Your task to perform on an android device: Play the last video I watched on Youtube Image 0: 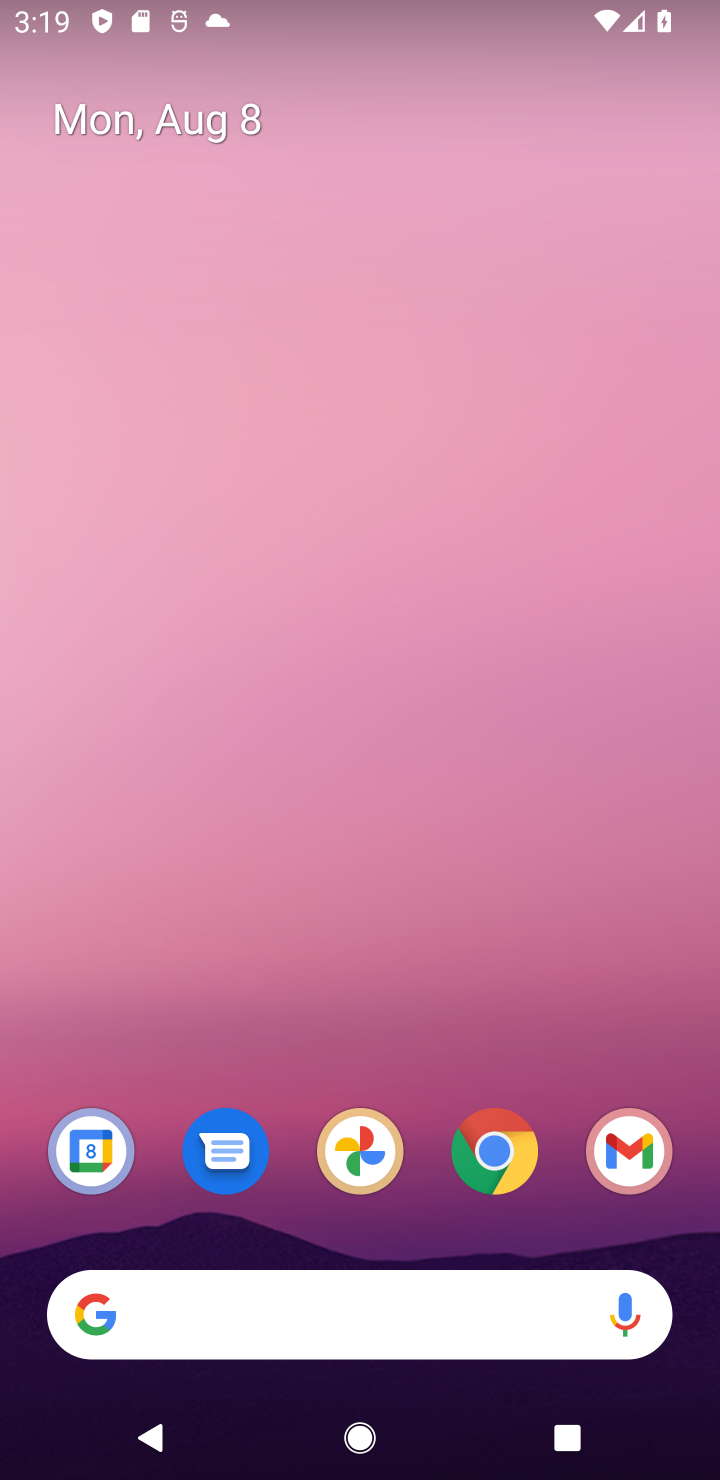
Step 0: drag from (344, 1036) to (441, 160)
Your task to perform on an android device: Play the last video I watched on Youtube Image 1: 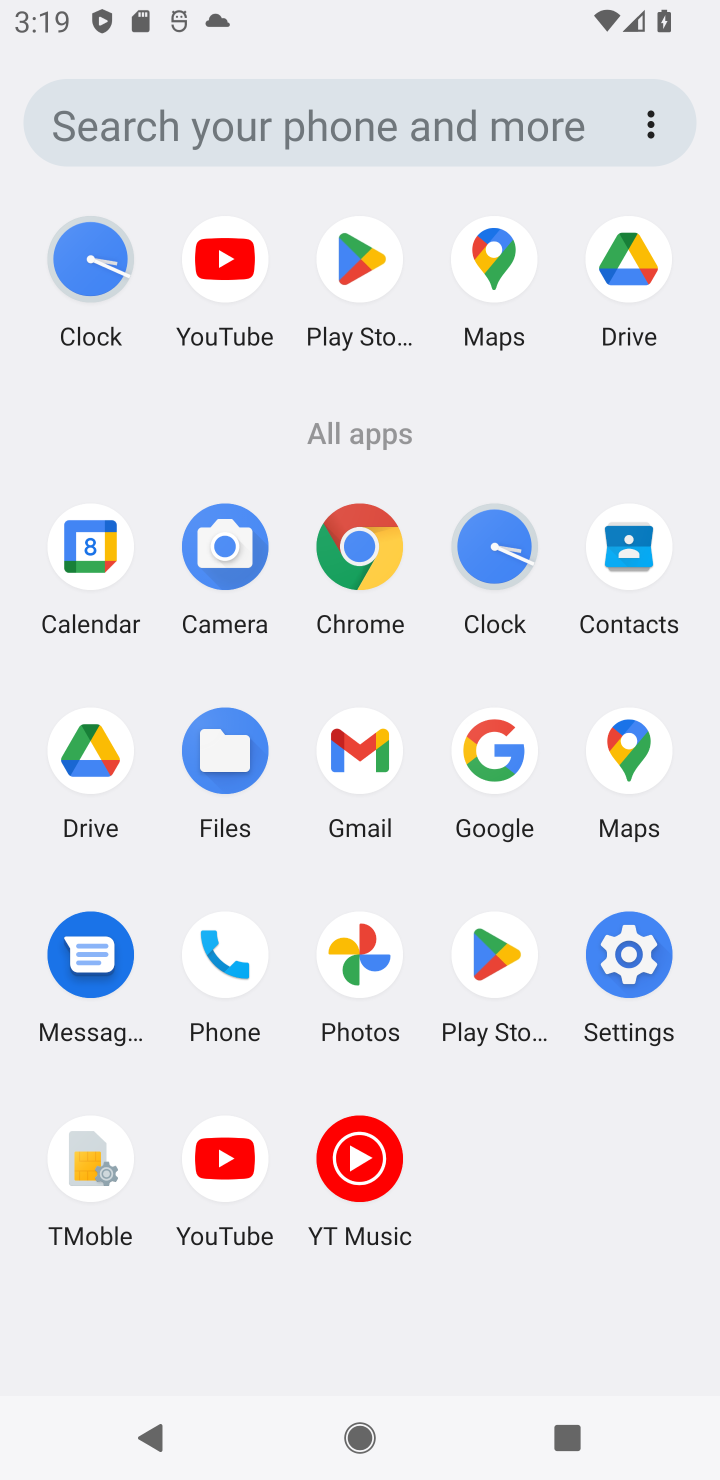
Step 1: click (259, 262)
Your task to perform on an android device: Play the last video I watched on Youtube Image 2: 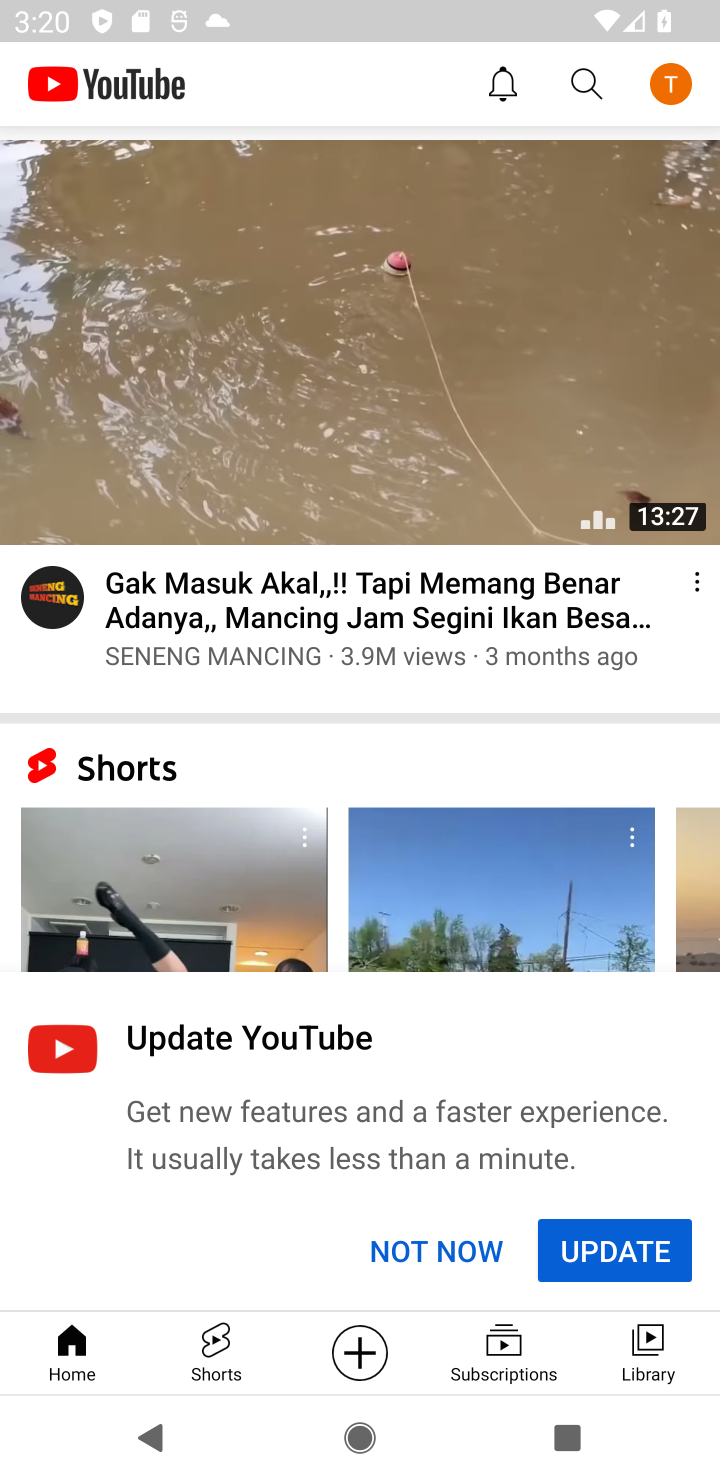
Step 2: click (644, 1363)
Your task to perform on an android device: Play the last video I watched on Youtube Image 3: 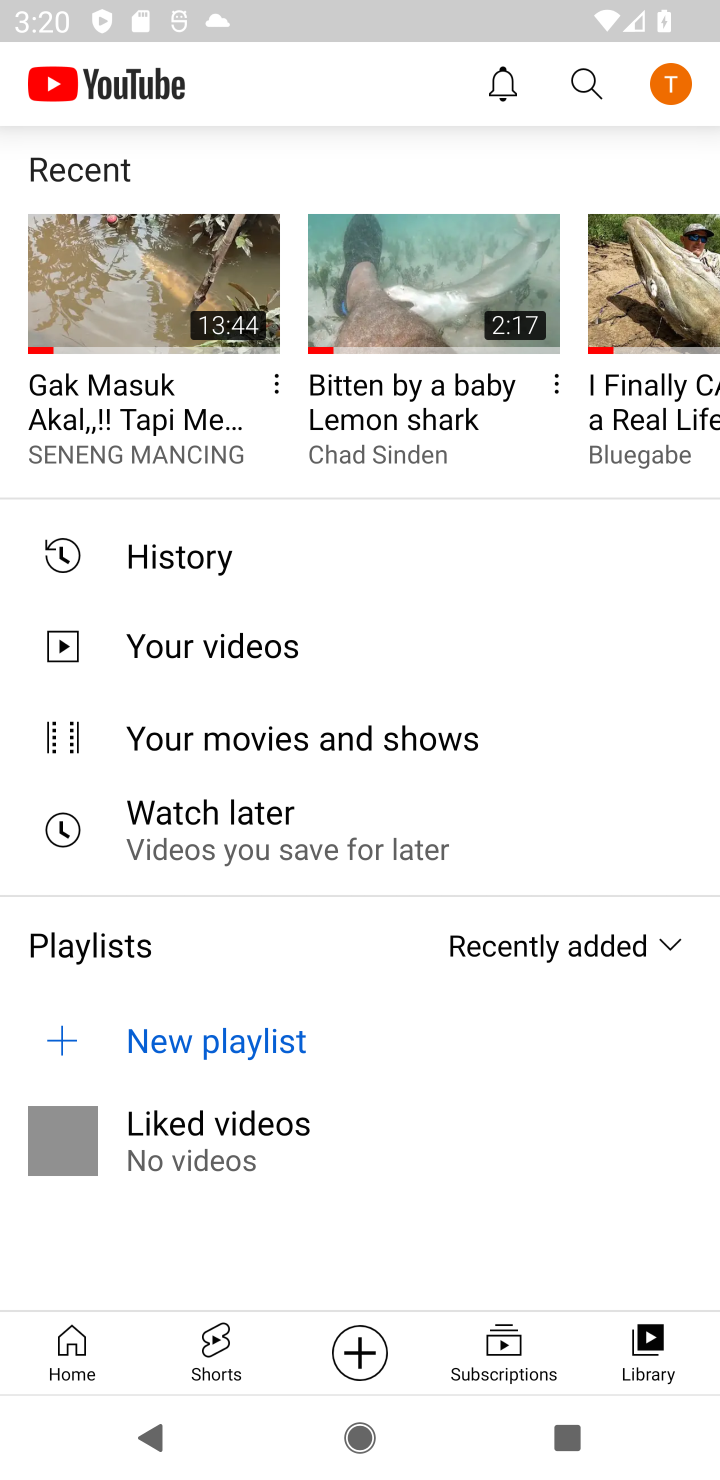
Step 3: click (152, 306)
Your task to perform on an android device: Play the last video I watched on Youtube Image 4: 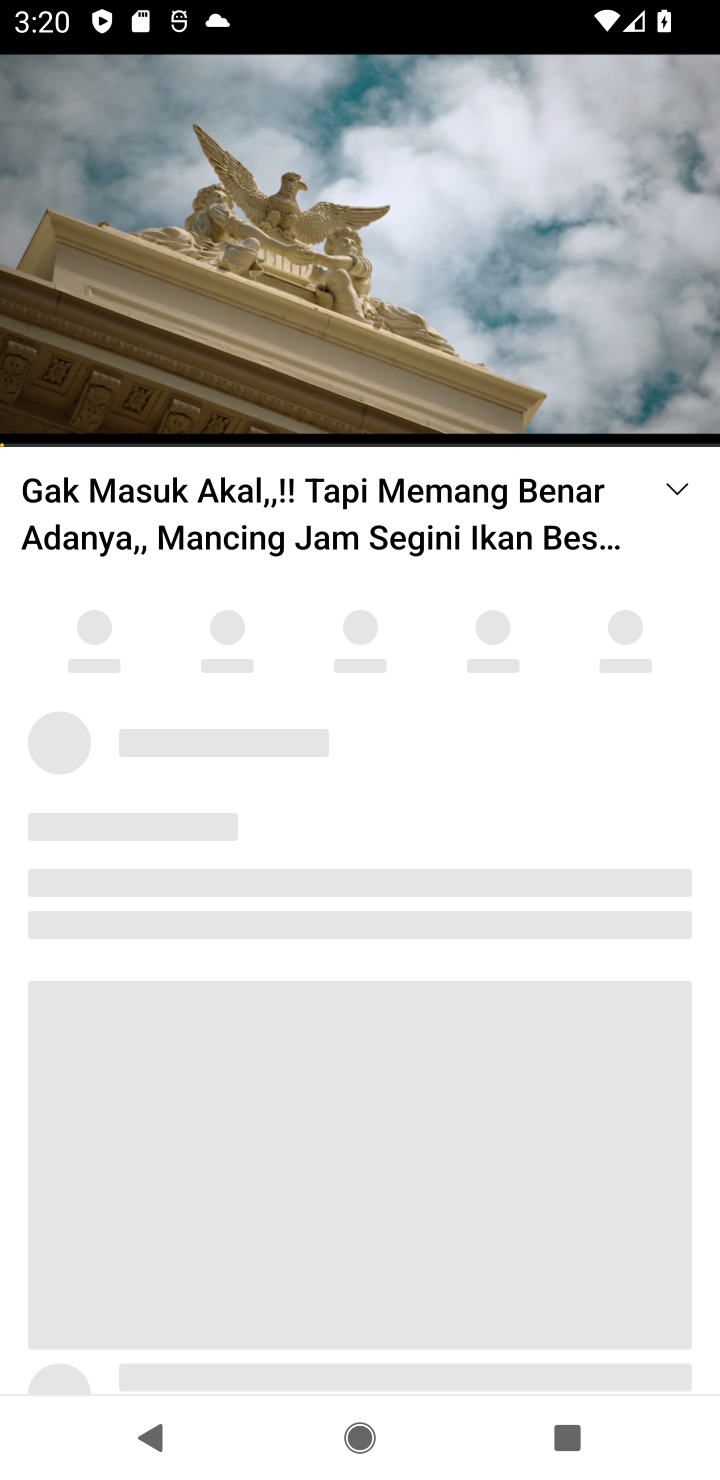
Step 4: click (369, 250)
Your task to perform on an android device: Play the last video I watched on Youtube Image 5: 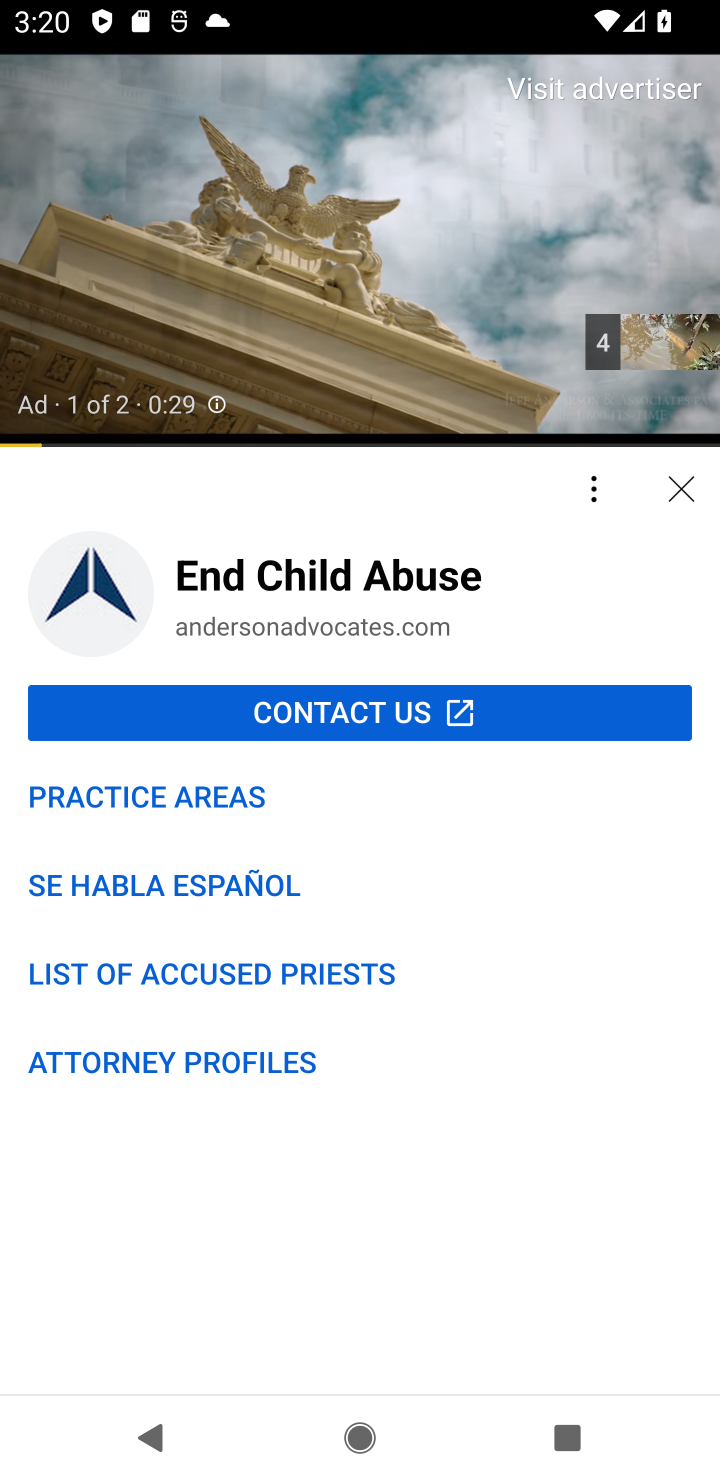
Step 5: click (360, 248)
Your task to perform on an android device: Play the last video I watched on Youtube Image 6: 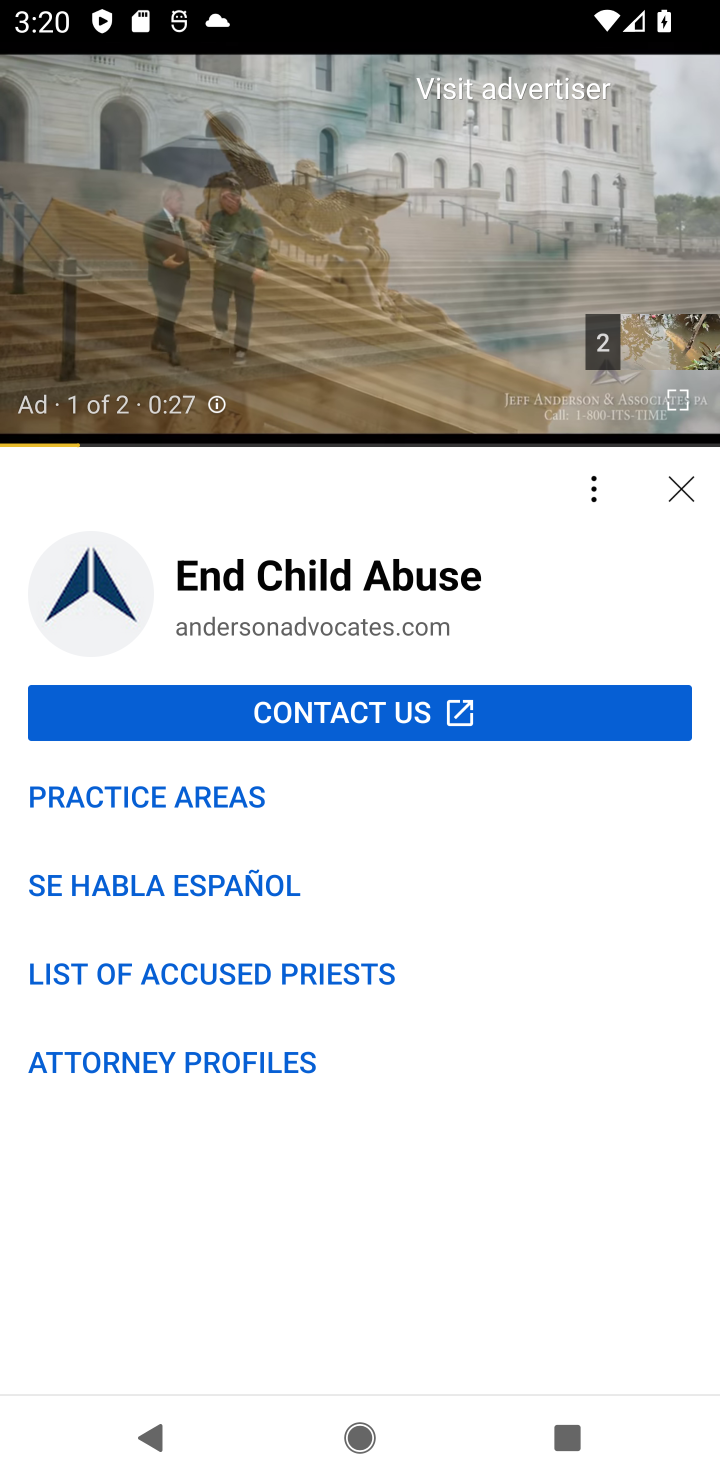
Step 6: click (347, 262)
Your task to perform on an android device: Play the last video I watched on Youtube Image 7: 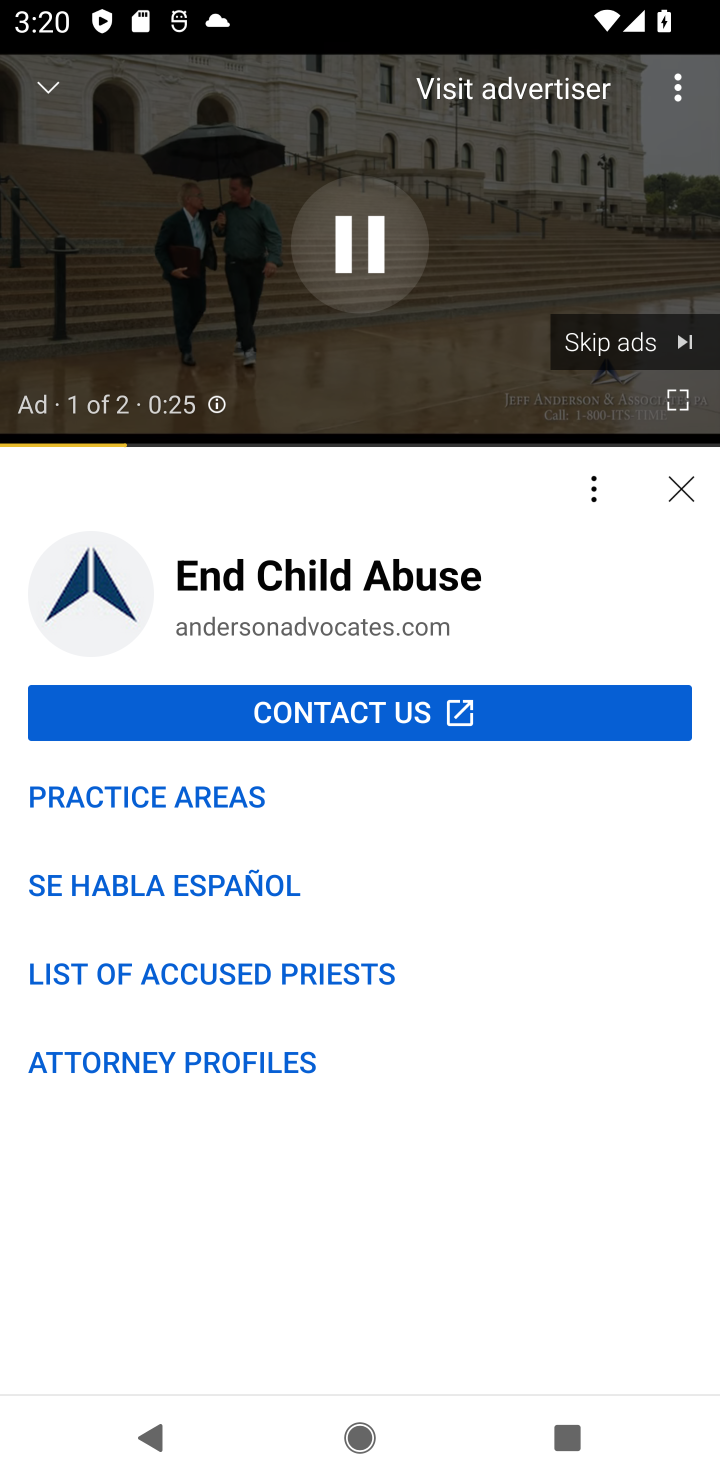
Step 7: click (369, 240)
Your task to perform on an android device: Play the last video I watched on Youtube Image 8: 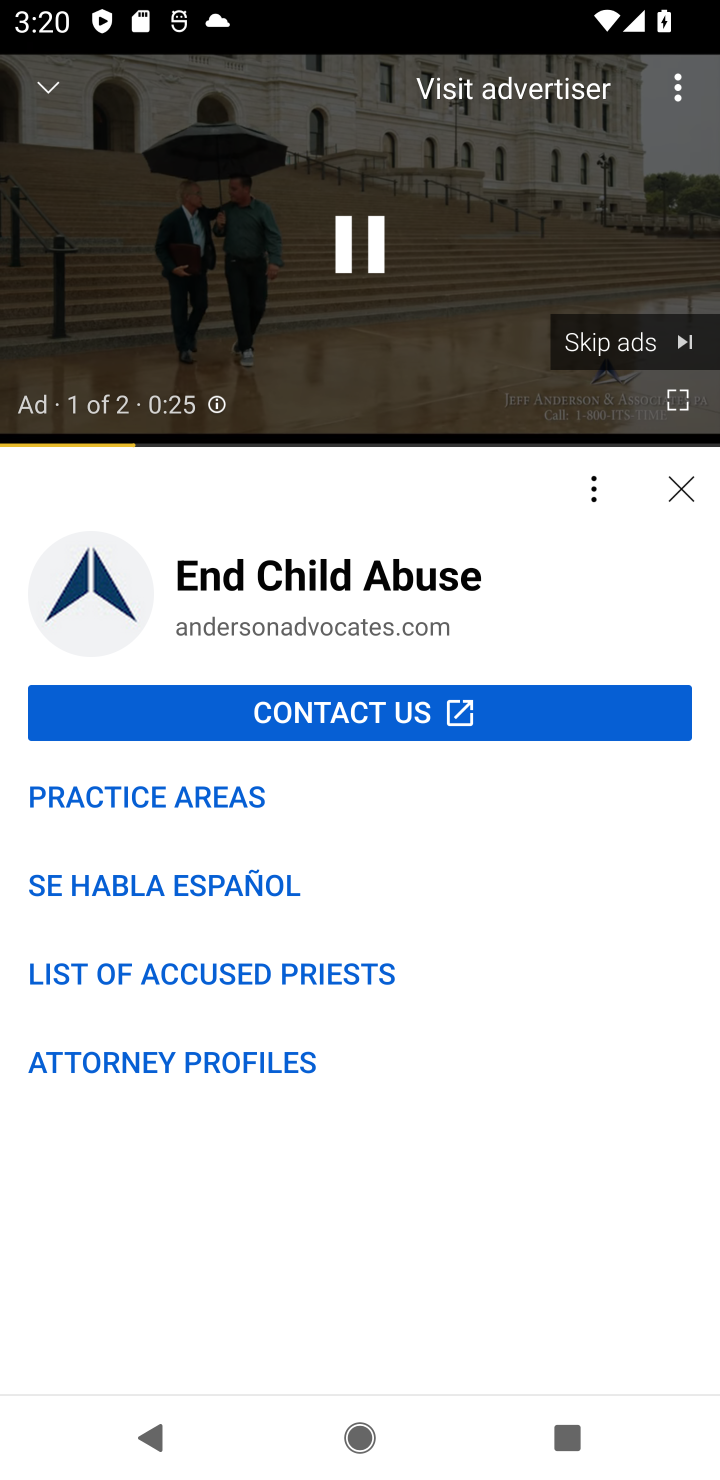
Step 8: task complete